Your task to perform on an android device: Open Youtube and go to "Your channel" Image 0: 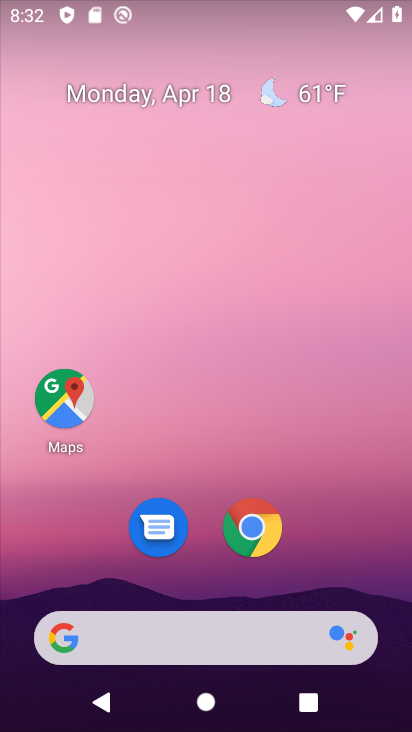
Step 0: drag from (196, 560) to (241, 112)
Your task to perform on an android device: Open Youtube and go to "Your channel" Image 1: 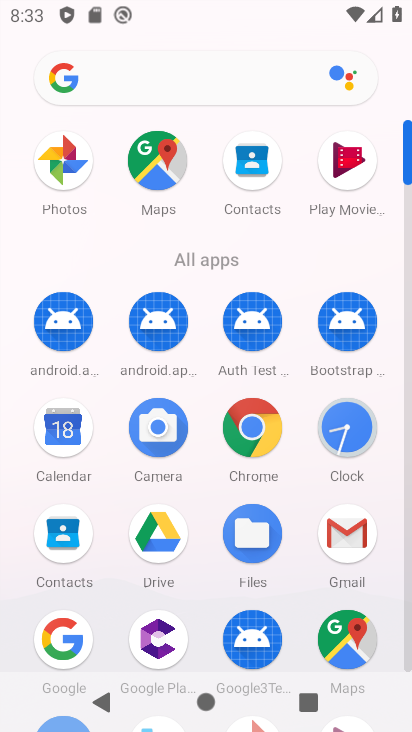
Step 1: drag from (211, 638) to (209, 119)
Your task to perform on an android device: Open Youtube and go to "Your channel" Image 2: 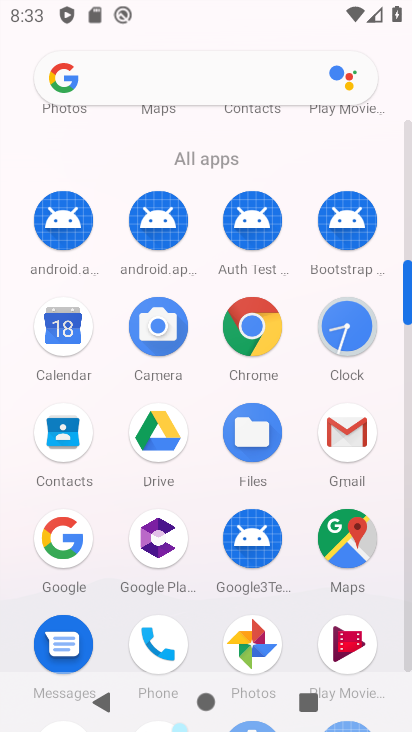
Step 2: drag from (204, 614) to (260, 166)
Your task to perform on an android device: Open Youtube and go to "Your channel" Image 3: 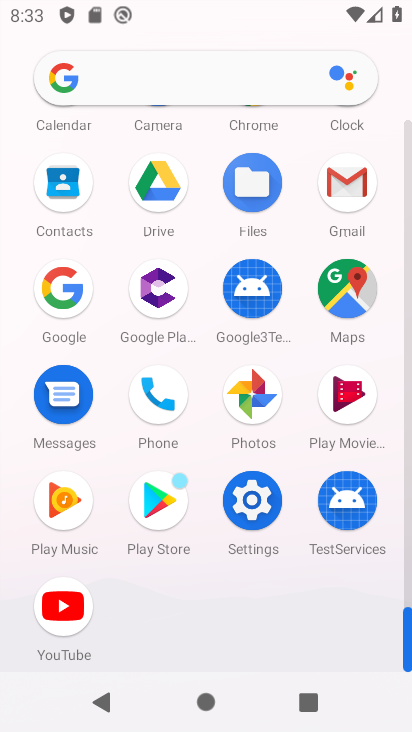
Step 3: click (61, 583)
Your task to perform on an android device: Open Youtube and go to "Your channel" Image 4: 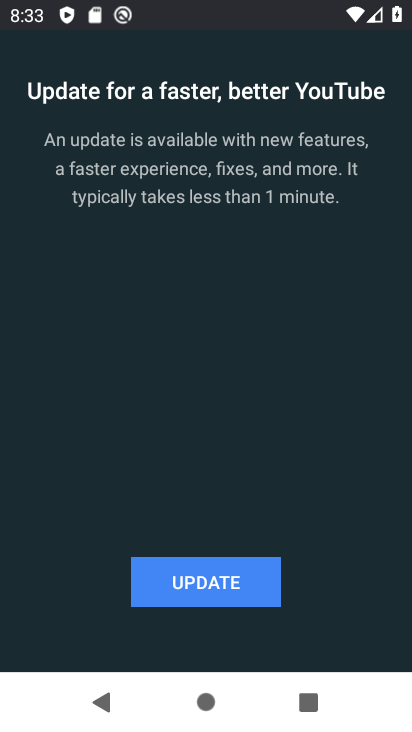
Step 4: click (254, 575)
Your task to perform on an android device: Open Youtube and go to "Your channel" Image 5: 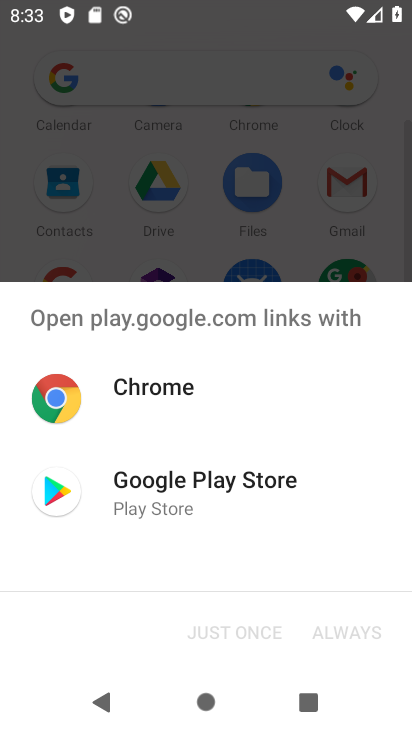
Step 5: click (200, 483)
Your task to perform on an android device: Open Youtube and go to "Your channel" Image 6: 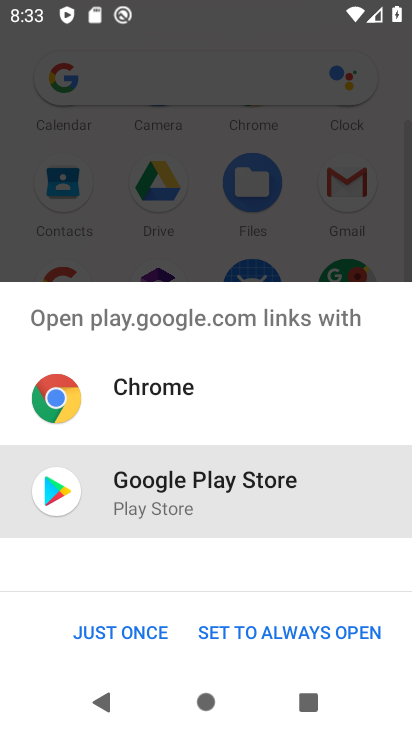
Step 6: click (134, 627)
Your task to perform on an android device: Open Youtube and go to "Your channel" Image 7: 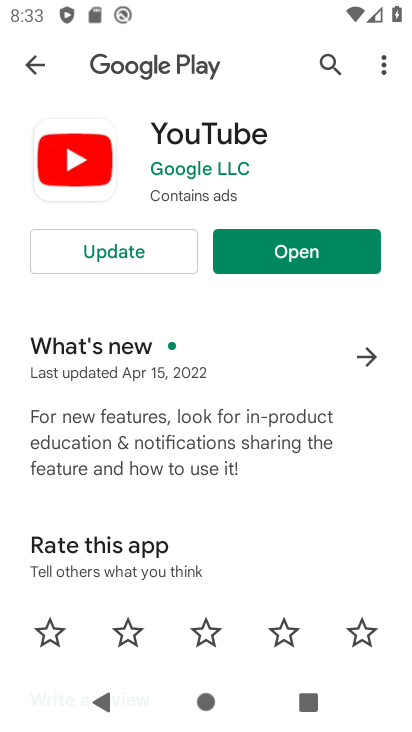
Step 7: click (33, 263)
Your task to perform on an android device: Open Youtube and go to "Your channel" Image 8: 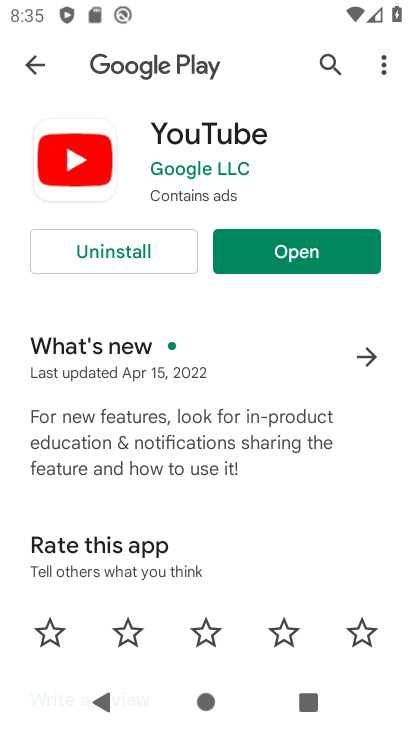
Step 8: click (280, 261)
Your task to perform on an android device: Open Youtube and go to "Your channel" Image 9: 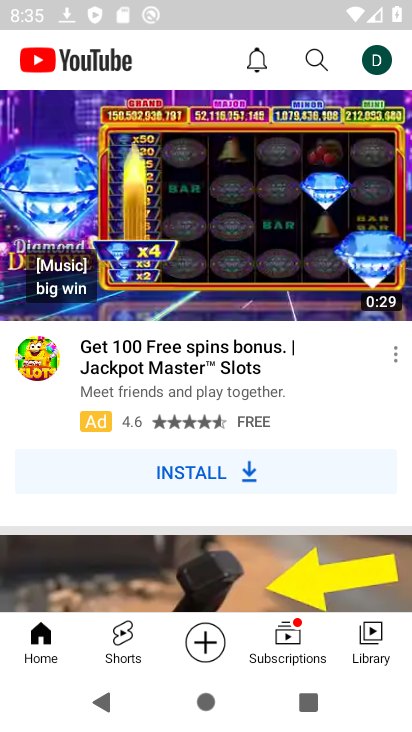
Step 9: click (305, 63)
Your task to perform on an android device: Open Youtube and go to "Your channel" Image 10: 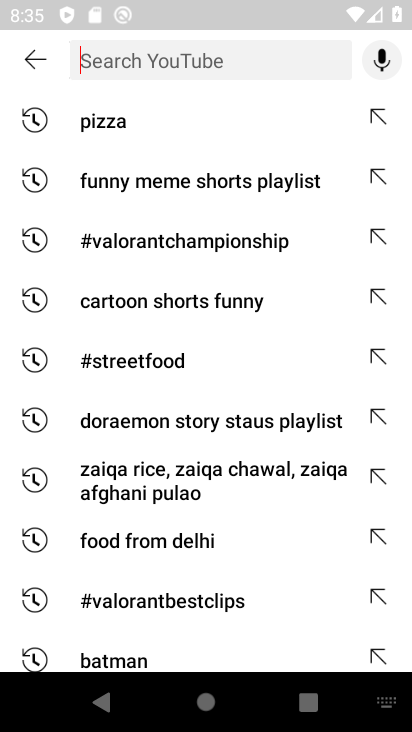
Step 10: type "your channel"
Your task to perform on an android device: Open Youtube and go to "Your channel" Image 11: 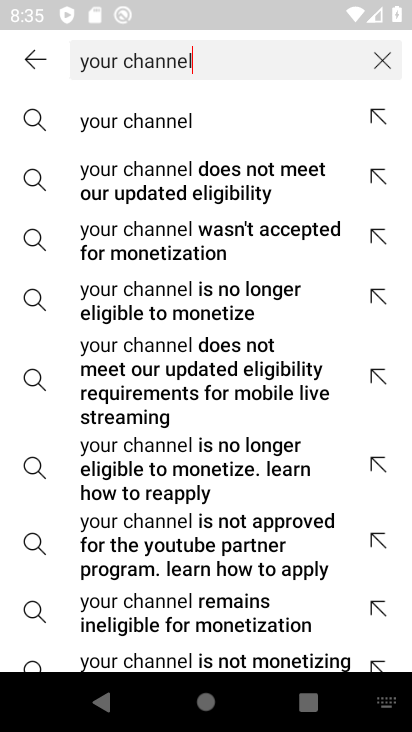
Step 11: click (196, 122)
Your task to perform on an android device: Open Youtube and go to "Your channel" Image 12: 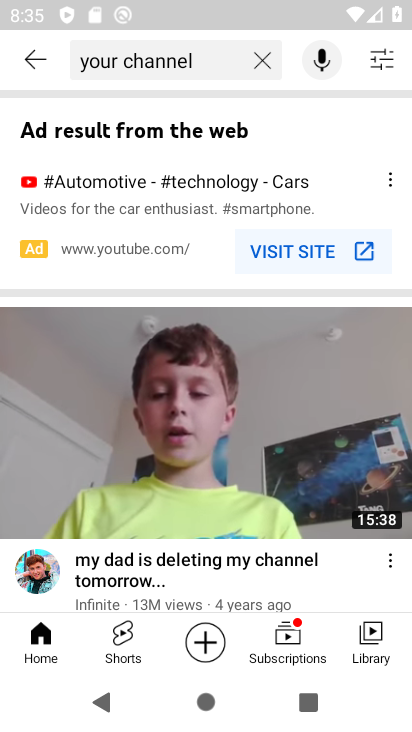
Step 12: task complete